Your task to perform on an android device: star an email in the gmail app Image 0: 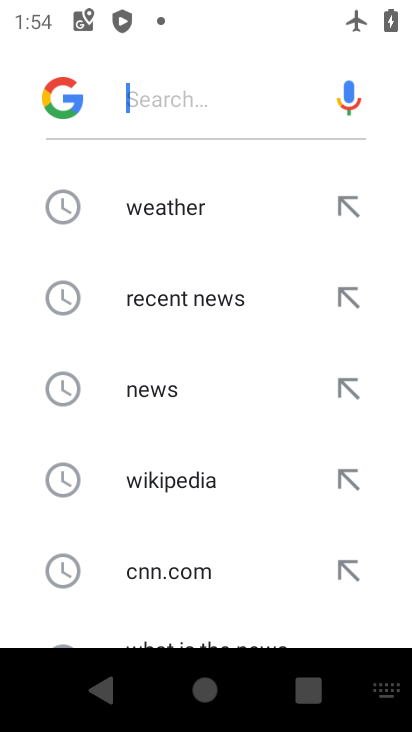
Step 0: press home button
Your task to perform on an android device: star an email in the gmail app Image 1: 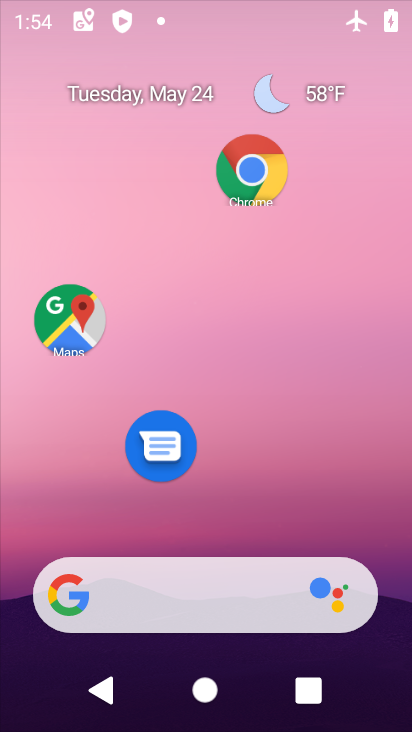
Step 1: drag from (181, 598) to (170, 73)
Your task to perform on an android device: star an email in the gmail app Image 2: 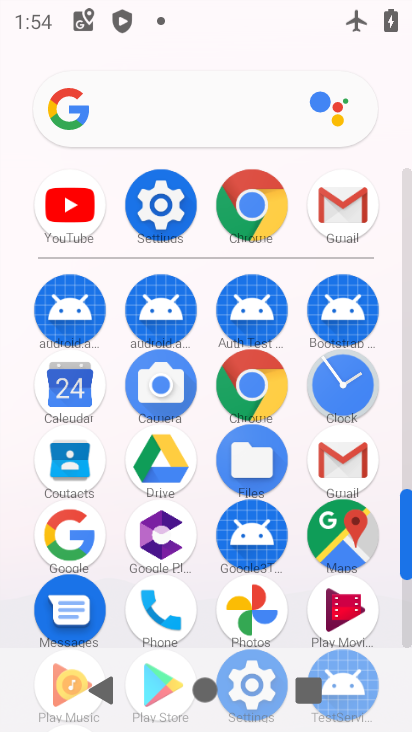
Step 2: click (346, 483)
Your task to perform on an android device: star an email in the gmail app Image 3: 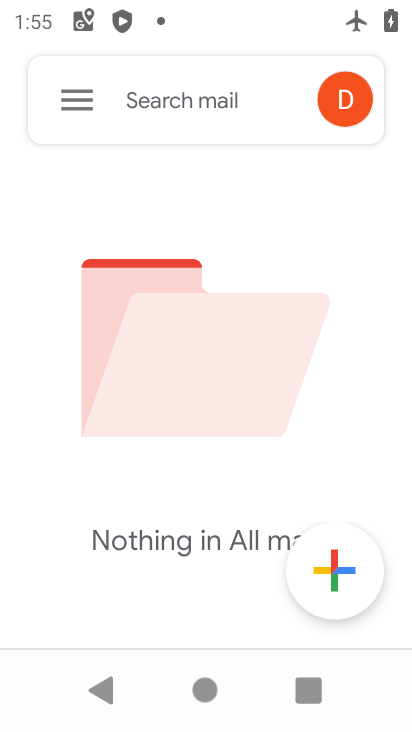
Step 3: click (65, 105)
Your task to perform on an android device: star an email in the gmail app Image 4: 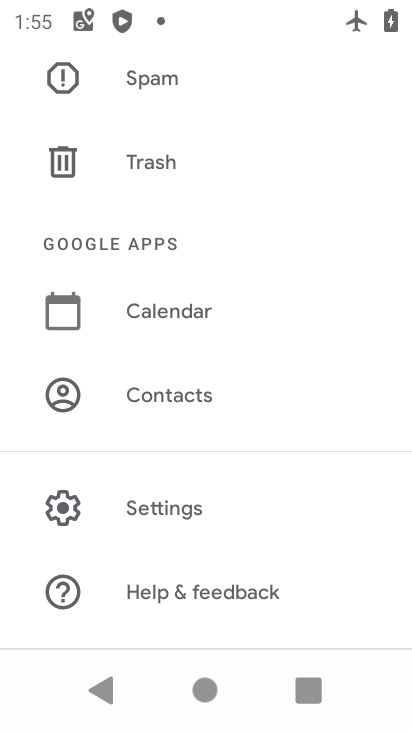
Step 4: drag from (191, 131) to (249, 442)
Your task to perform on an android device: star an email in the gmail app Image 5: 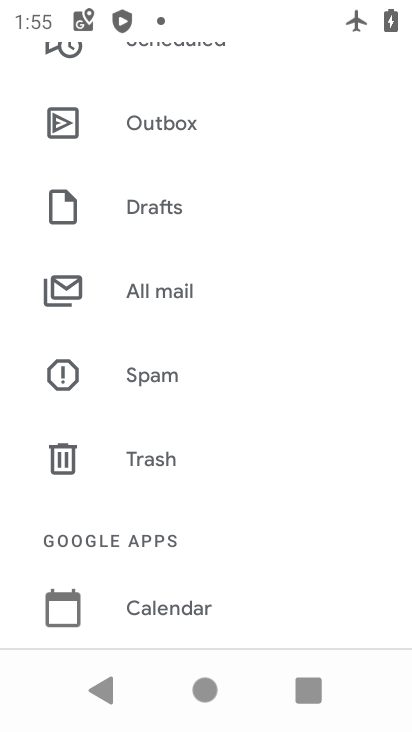
Step 5: click (219, 288)
Your task to perform on an android device: star an email in the gmail app Image 6: 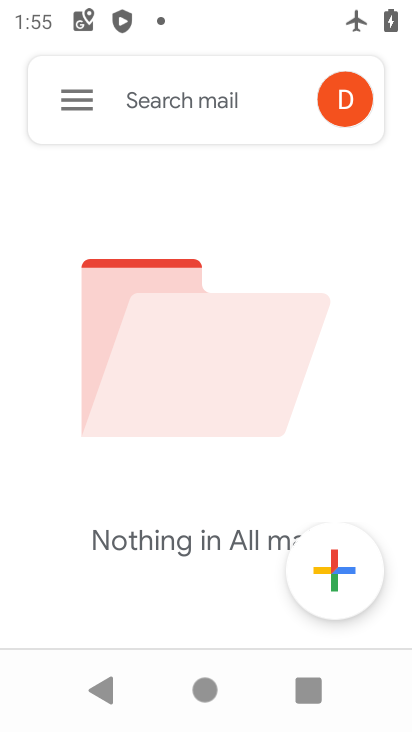
Step 6: task complete